Your task to perform on an android device: check out phone information Image 0: 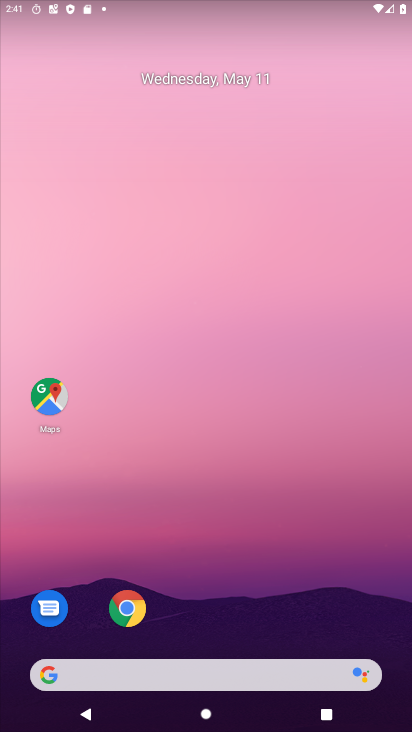
Step 0: drag from (232, 399) to (232, 230)
Your task to perform on an android device: check out phone information Image 1: 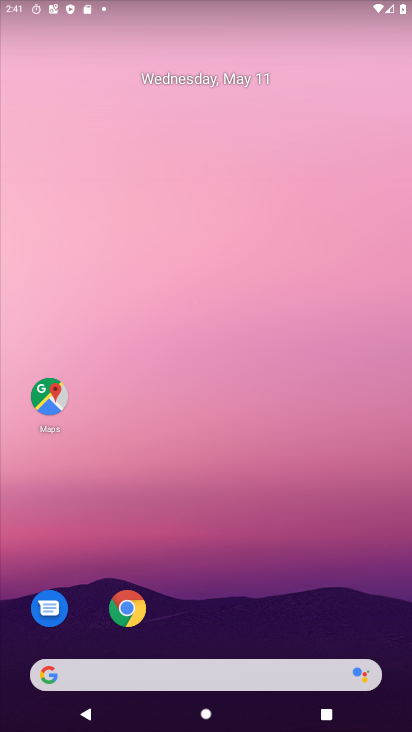
Step 1: drag from (170, 696) to (354, 211)
Your task to perform on an android device: check out phone information Image 2: 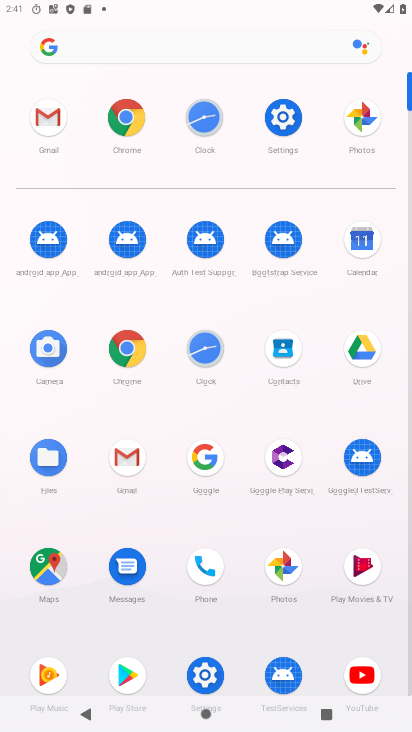
Step 2: click (204, 678)
Your task to perform on an android device: check out phone information Image 3: 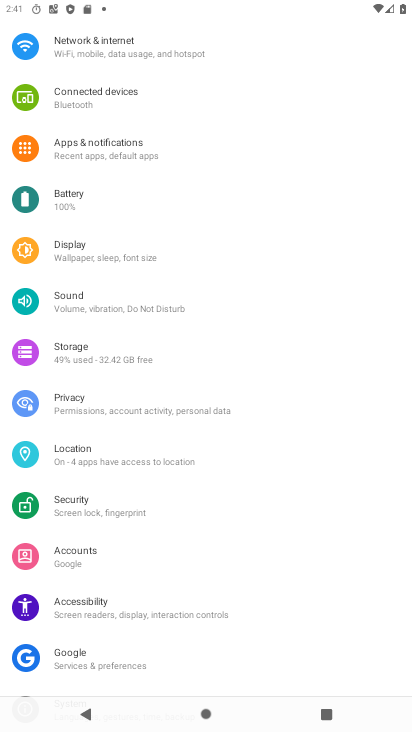
Step 3: task complete